Your task to perform on an android device: turn off data saver in the chrome app Image 0: 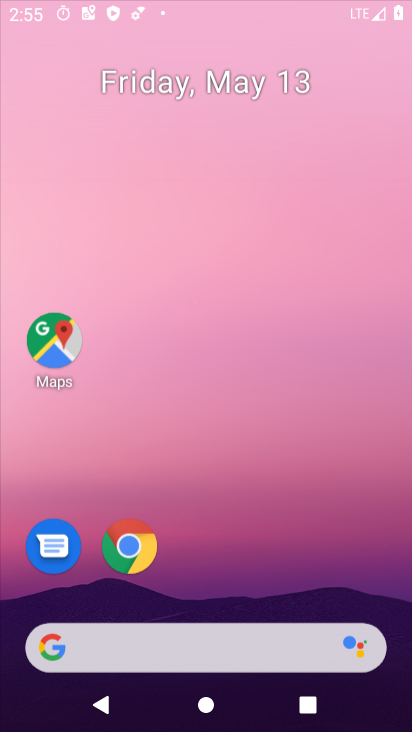
Step 0: click (286, 60)
Your task to perform on an android device: turn off data saver in the chrome app Image 1: 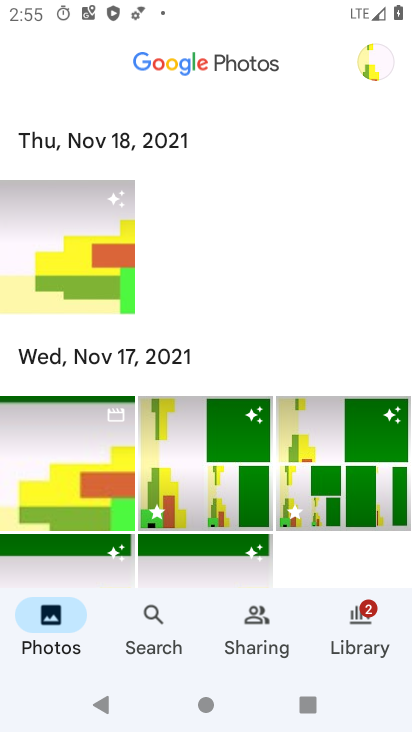
Step 1: press home button
Your task to perform on an android device: turn off data saver in the chrome app Image 2: 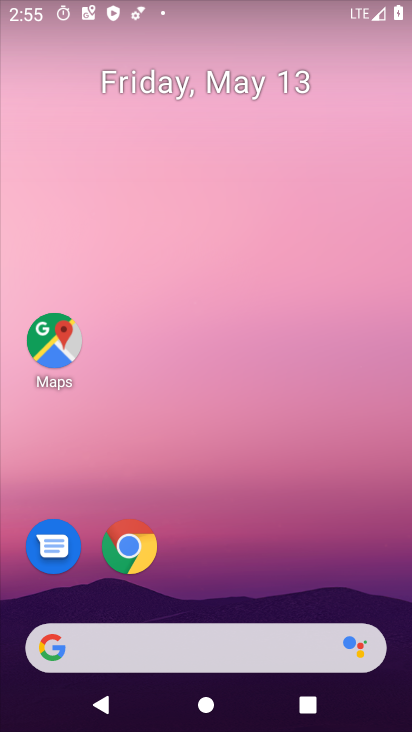
Step 2: click (117, 571)
Your task to perform on an android device: turn off data saver in the chrome app Image 3: 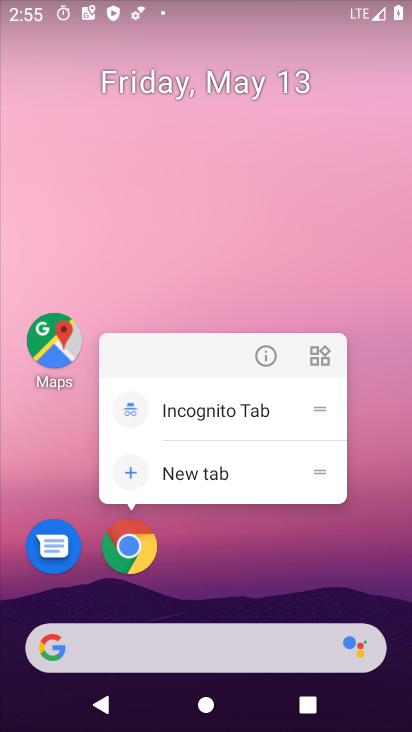
Step 3: click (136, 551)
Your task to perform on an android device: turn off data saver in the chrome app Image 4: 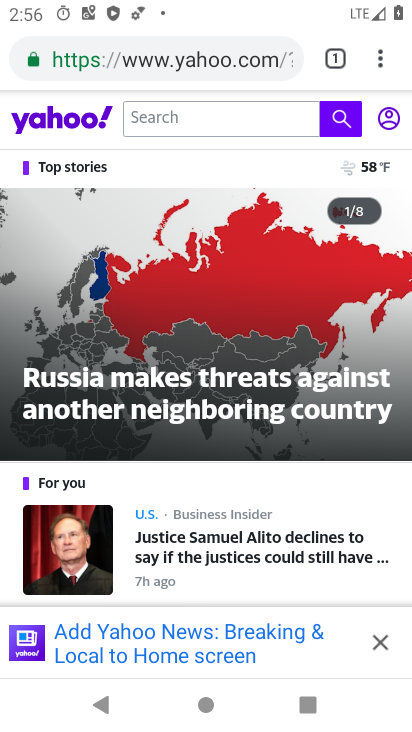
Step 4: click (379, 46)
Your task to perform on an android device: turn off data saver in the chrome app Image 5: 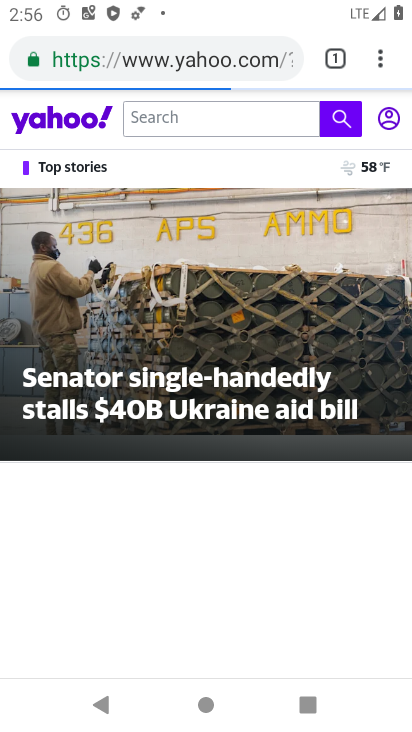
Step 5: click (384, 54)
Your task to perform on an android device: turn off data saver in the chrome app Image 6: 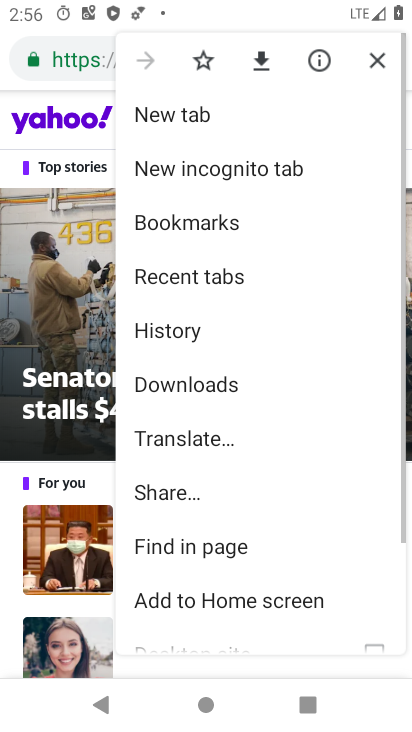
Step 6: drag from (251, 488) to (259, 119)
Your task to perform on an android device: turn off data saver in the chrome app Image 7: 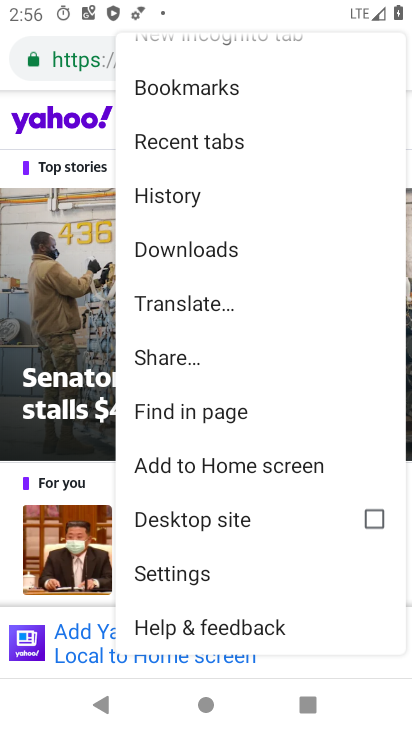
Step 7: click (208, 583)
Your task to perform on an android device: turn off data saver in the chrome app Image 8: 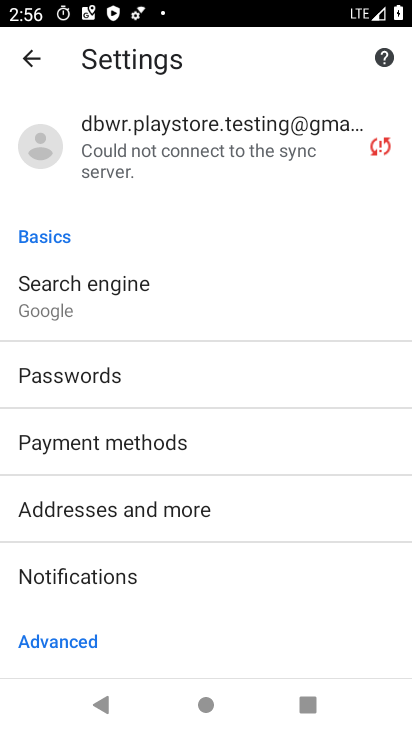
Step 8: drag from (210, 523) to (255, 276)
Your task to perform on an android device: turn off data saver in the chrome app Image 9: 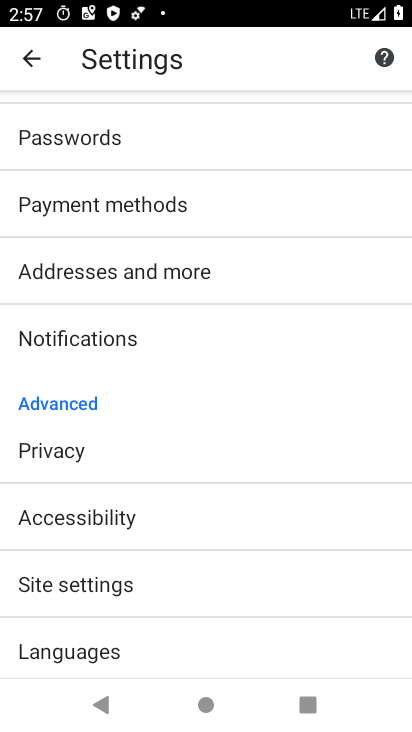
Step 9: drag from (137, 514) to (165, 92)
Your task to perform on an android device: turn off data saver in the chrome app Image 10: 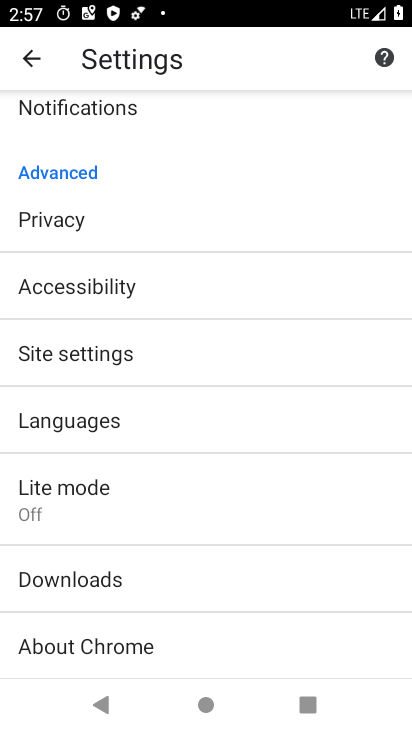
Step 10: drag from (155, 550) to (213, 101)
Your task to perform on an android device: turn off data saver in the chrome app Image 11: 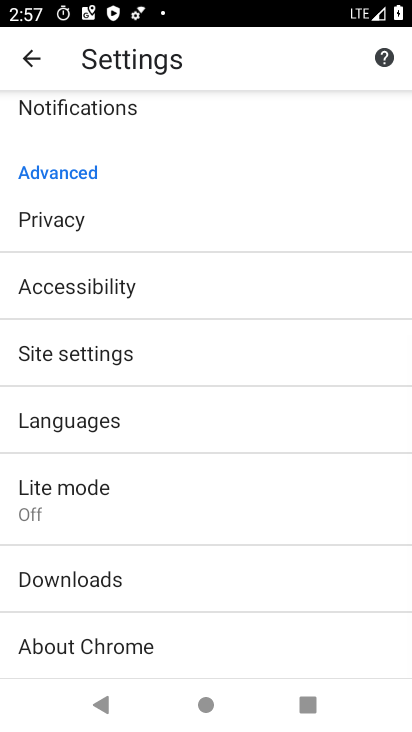
Step 11: click (158, 510)
Your task to perform on an android device: turn off data saver in the chrome app Image 12: 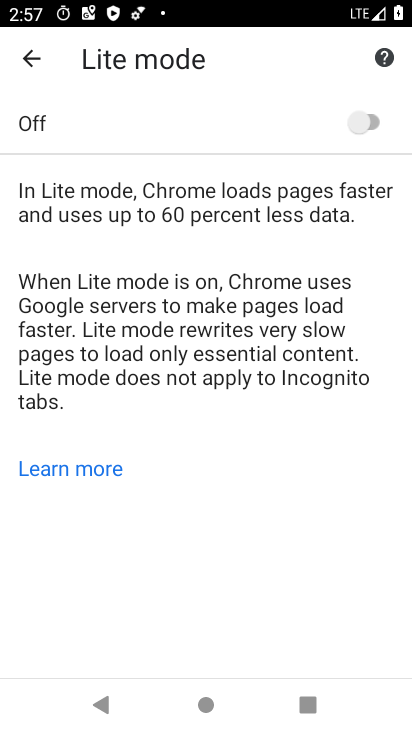
Step 12: task complete